Your task to perform on an android device: Open Youtube and go to "Your channel" Image 0: 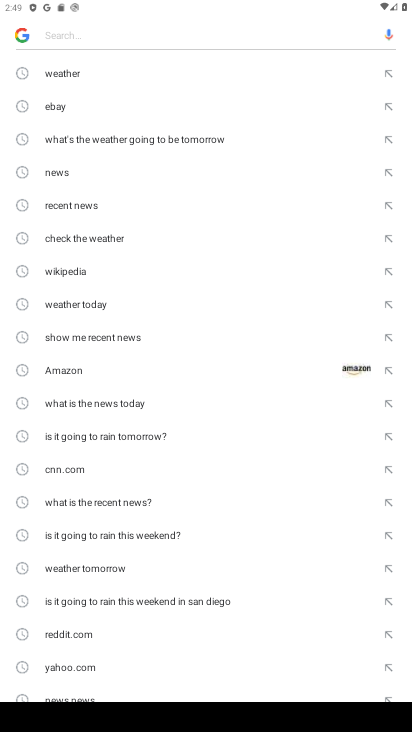
Step 0: press back button
Your task to perform on an android device: Open Youtube and go to "Your channel" Image 1: 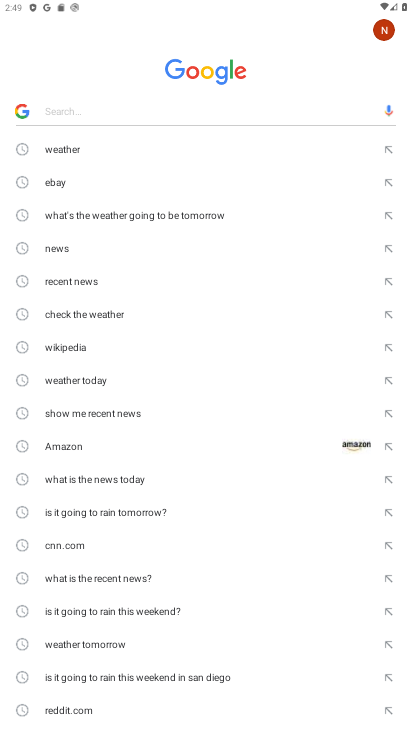
Step 1: press back button
Your task to perform on an android device: Open Youtube and go to "Your channel" Image 2: 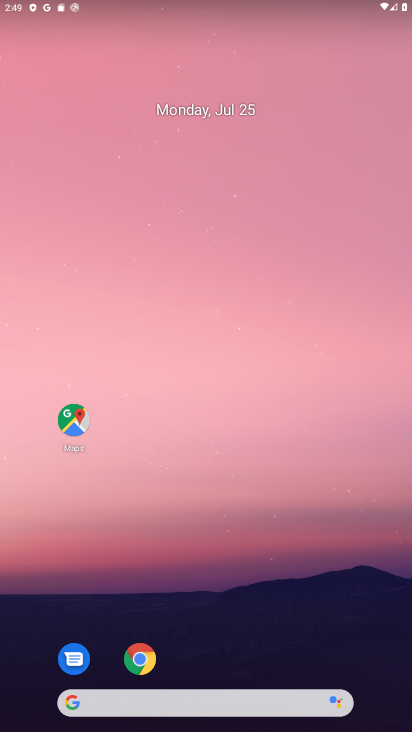
Step 2: drag from (215, 678) to (186, 174)
Your task to perform on an android device: Open Youtube and go to "Your channel" Image 3: 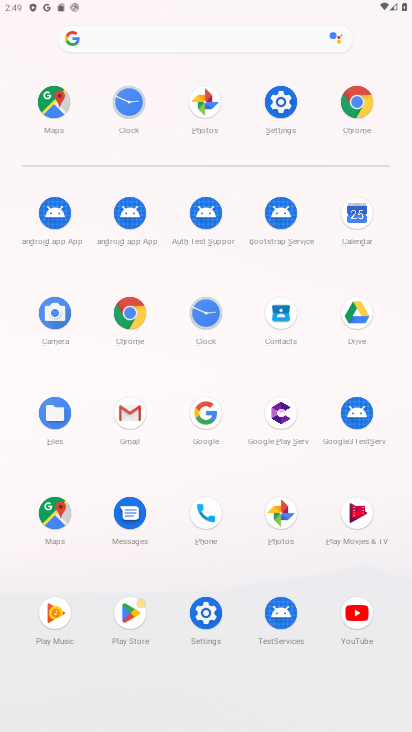
Step 3: click (348, 609)
Your task to perform on an android device: Open Youtube and go to "Your channel" Image 4: 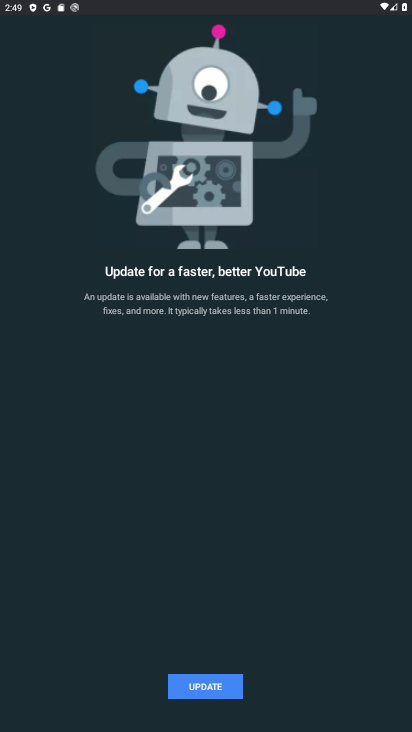
Step 4: click (228, 695)
Your task to perform on an android device: Open Youtube and go to "Your channel" Image 5: 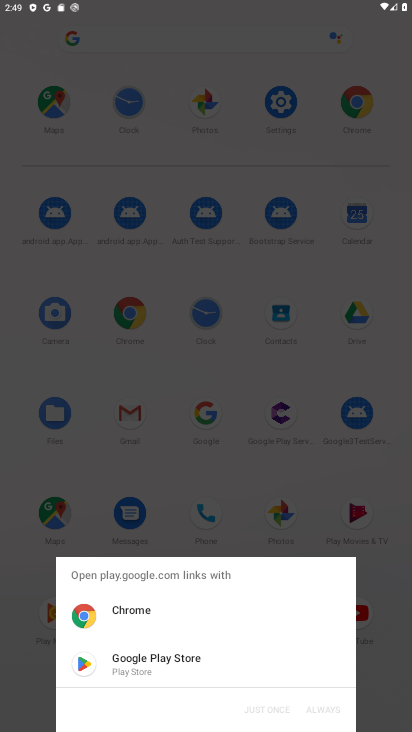
Step 5: drag from (228, 694) to (313, 694)
Your task to perform on an android device: Open Youtube and go to "Your channel" Image 6: 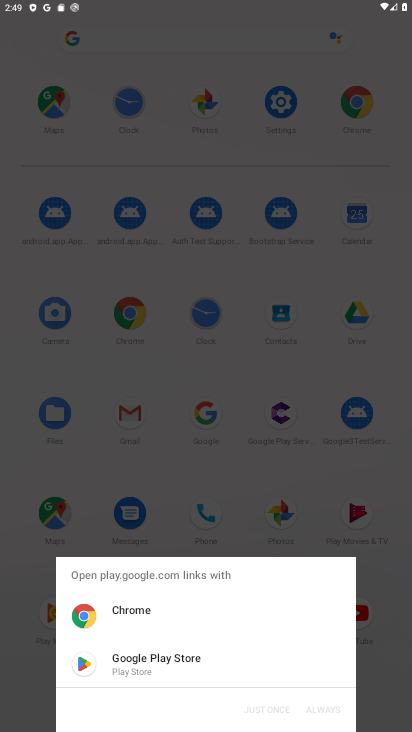
Step 6: click (160, 663)
Your task to perform on an android device: Open Youtube and go to "Your channel" Image 7: 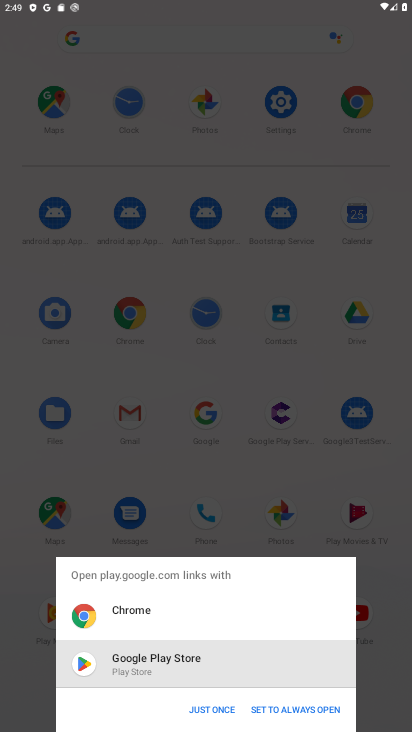
Step 7: click (206, 708)
Your task to perform on an android device: Open Youtube and go to "Your channel" Image 8: 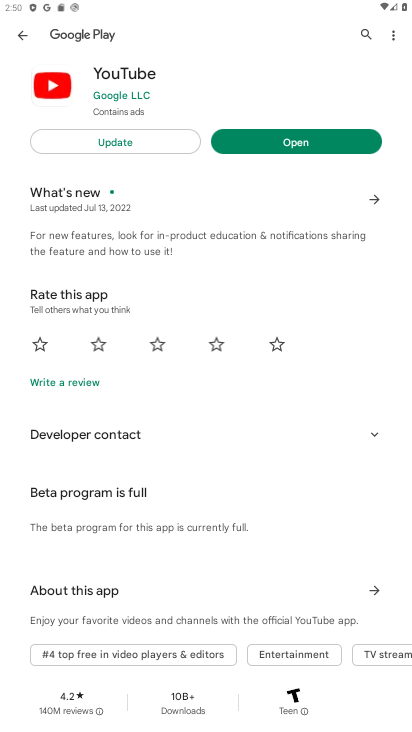
Step 8: click (84, 139)
Your task to perform on an android device: Open Youtube and go to "Your channel" Image 9: 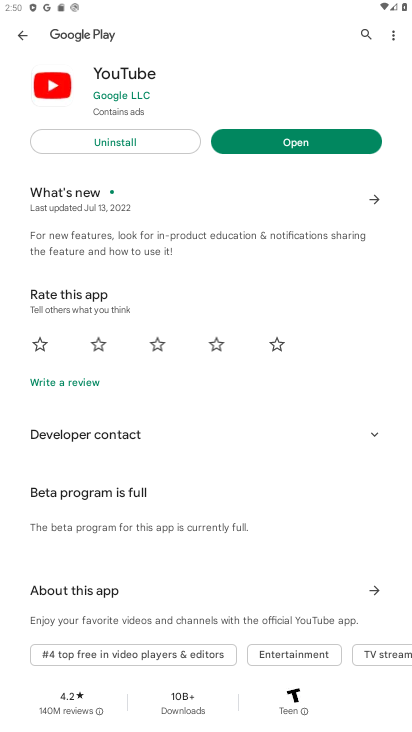
Step 9: click (325, 150)
Your task to perform on an android device: Open Youtube and go to "Your channel" Image 10: 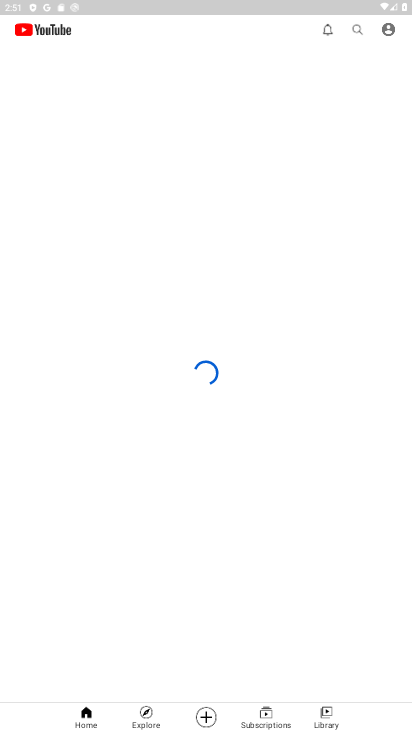
Step 10: click (387, 30)
Your task to perform on an android device: Open Youtube and go to "Your channel" Image 11: 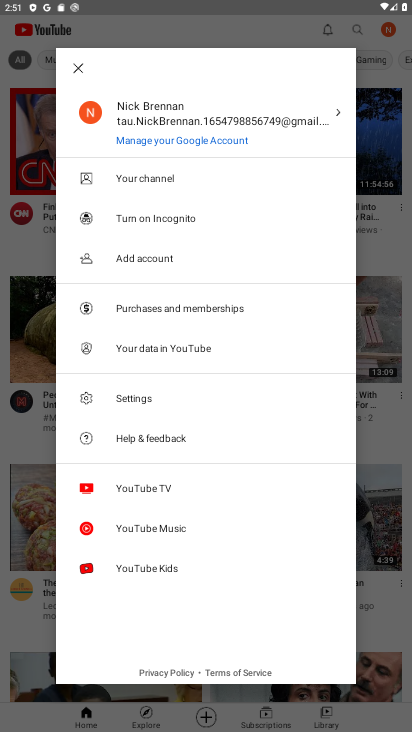
Step 11: click (387, 30)
Your task to perform on an android device: Open Youtube and go to "Your channel" Image 12: 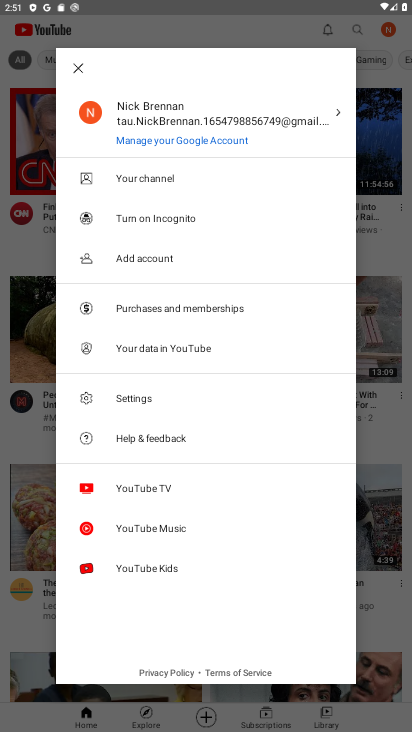
Step 12: click (387, 30)
Your task to perform on an android device: Open Youtube and go to "Your channel" Image 13: 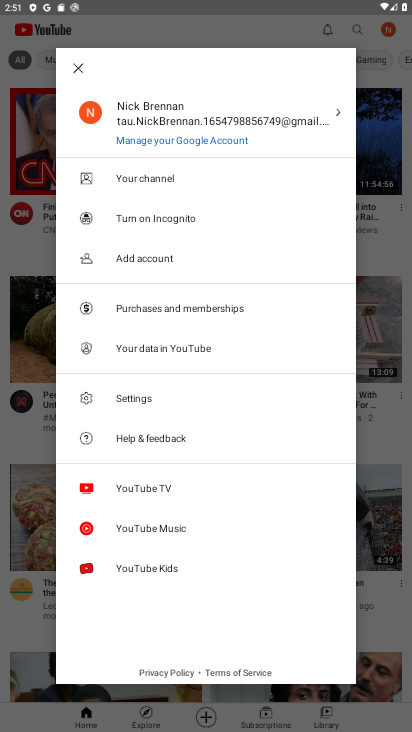
Step 13: click (387, 30)
Your task to perform on an android device: Open Youtube and go to "Your channel" Image 14: 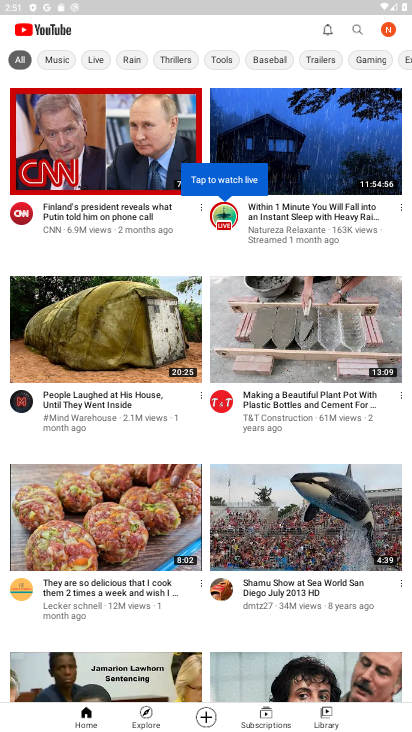
Step 14: click (382, 33)
Your task to perform on an android device: Open Youtube and go to "Your channel" Image 15: 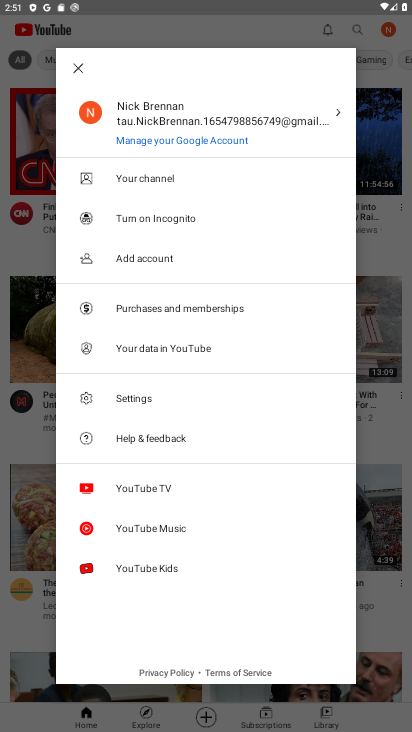
Step 15: click (149, 180)
Your task to perform on an android device: Open Youtube and go to "Your channel" Image 16: 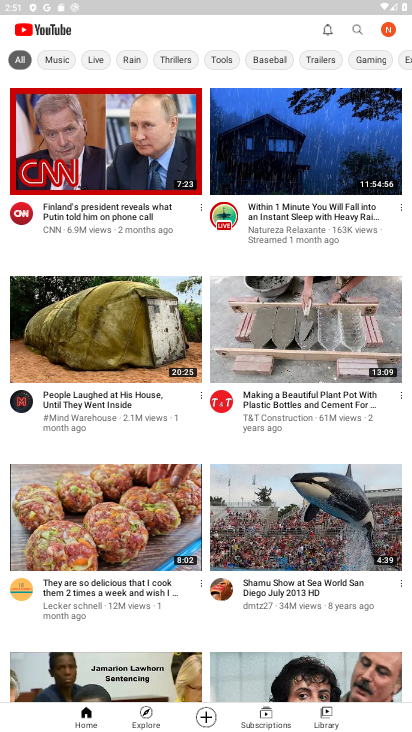
Step 16: task complete